Your task to perform on an android device: see tabs open on other devices in the chrome app Image 0: 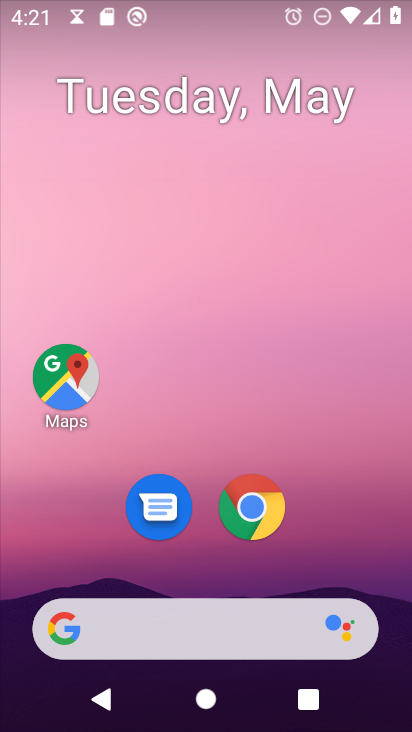
Step 0: click (233, 520)
Your task to perform on an android device: see tabs open on other devices in the chrome app Image 1: 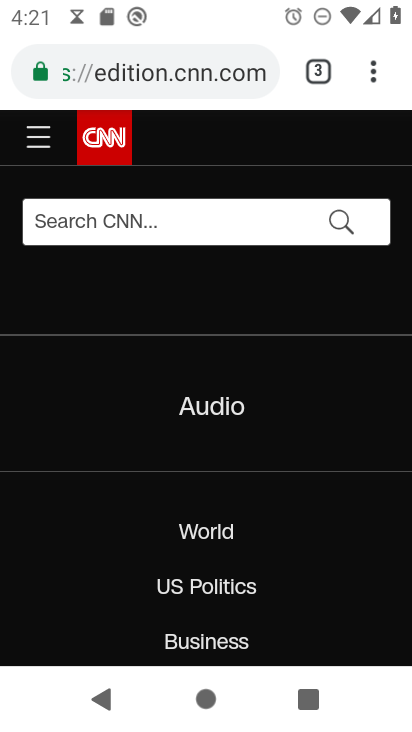
Step 1: click (372, 78)
Your task to perform on an android device: see tabs open on other devices in the chrome app Image 2: 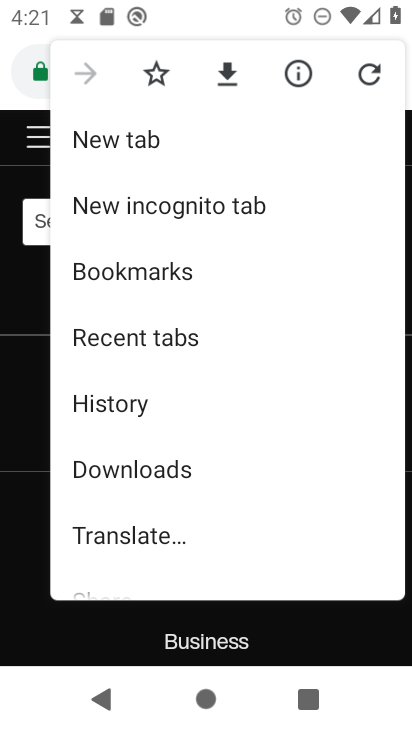
Step 2: click (141, 346)
Your task to perform on an android device: see tabs open on other devices in the chrome app Image 3: 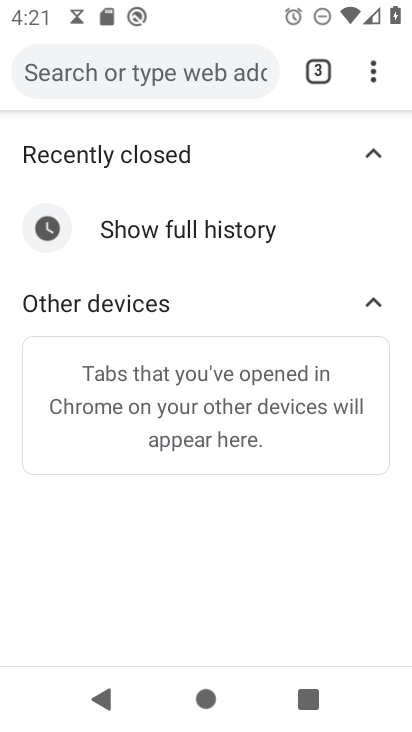
Step 3: task complete